Your task to perform on an android device: Go to Amazon Image 0: 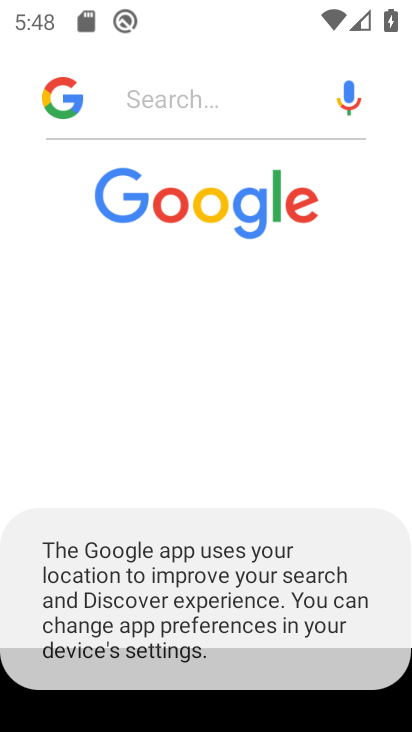
Step 0: press home button
Your task to perform on an android device: Go to Amazon Image 1: 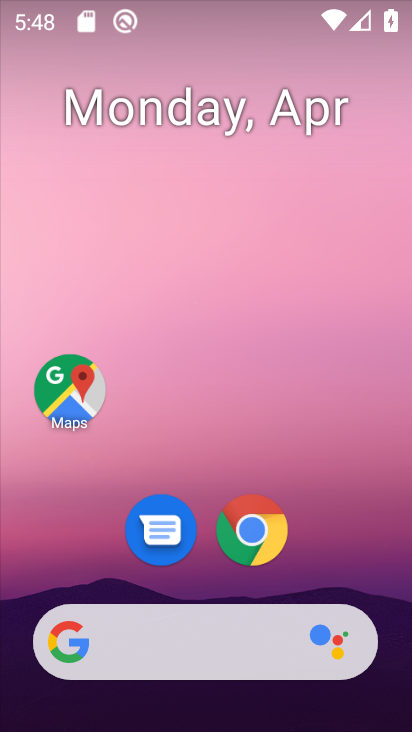
Step 1: click (251, 523)
Your task to perform on an android device: Go to Amazon Image 2: 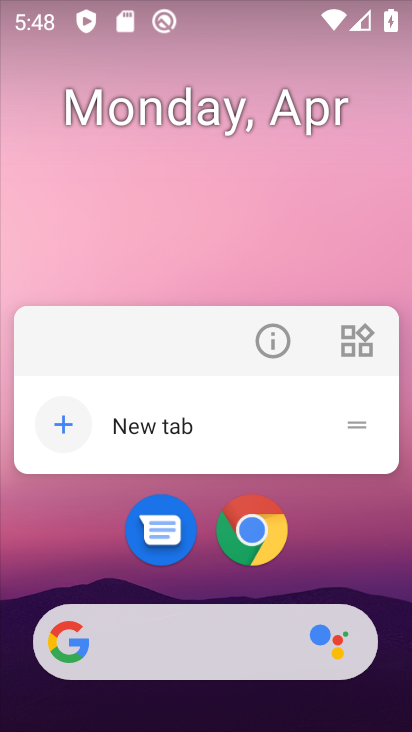
Step 2: click (313, 551)
Your task to perform on an android device: Go to Amazon Image 3: 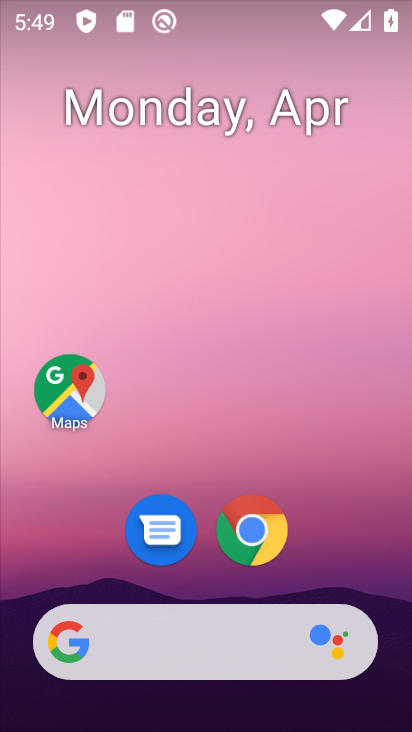
Step 3: drag from (303, 576) to (352, 27)
Your task to perform on an android device: Go to Amazon Image 4: 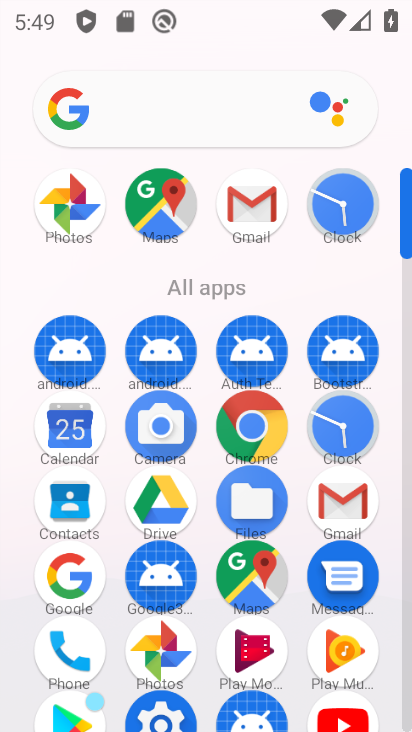
Step 4: drag from (206, 626) to (225, 174)
Your task to perform on an android device: Go to Amazon Image 5: 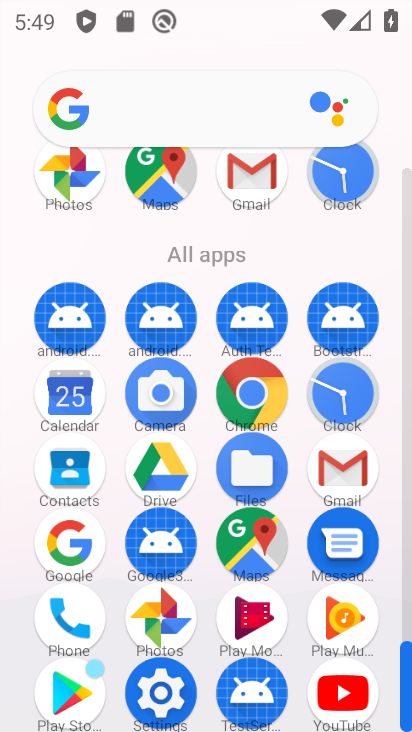
Step 5: click (255, 385)
Your task to perform on an android device: Go to Amazon Image 6: 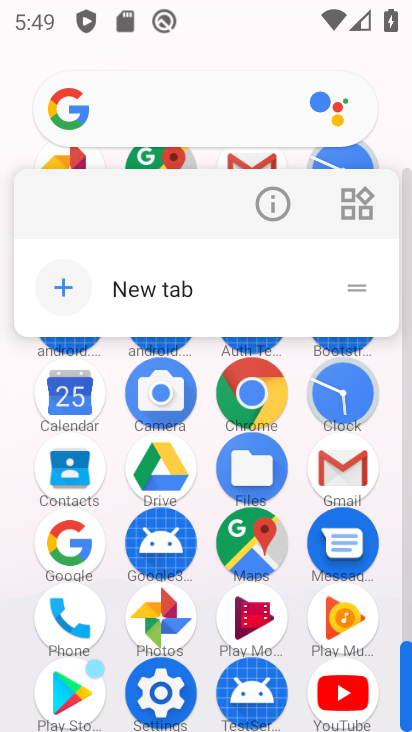
Step 6: click (253, 385)
Your task to perform on an android device: Go to Amazon Image 7: 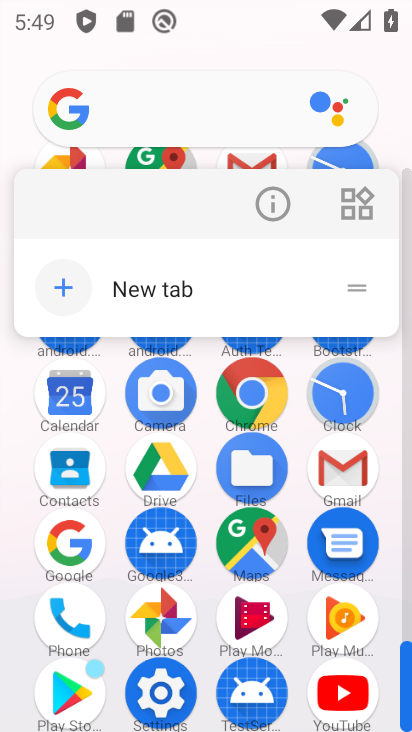
Step 7: click (244, 390)
Your task to perform on an android device: Go to Amazon Image 8: 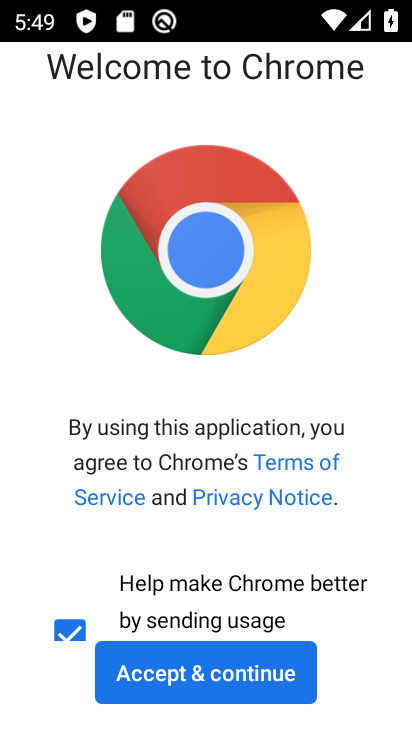
Step 8: click (194, 666)
Your task to perform on an android device: Go to Amazon Image 9: 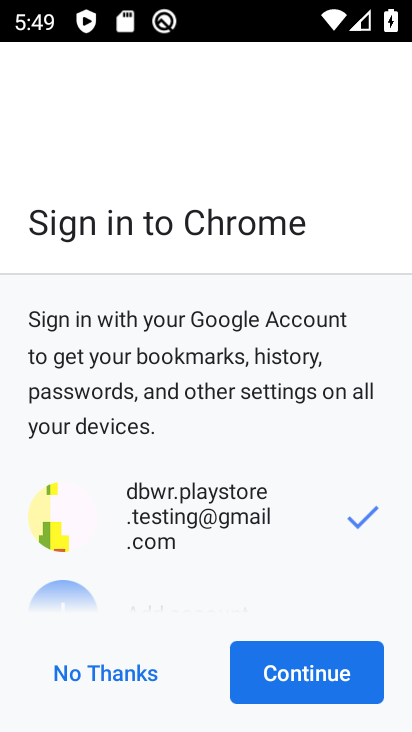
Step 9: click (310, 669)
Your task to perform on an android device: Go to Amazon Image 10: 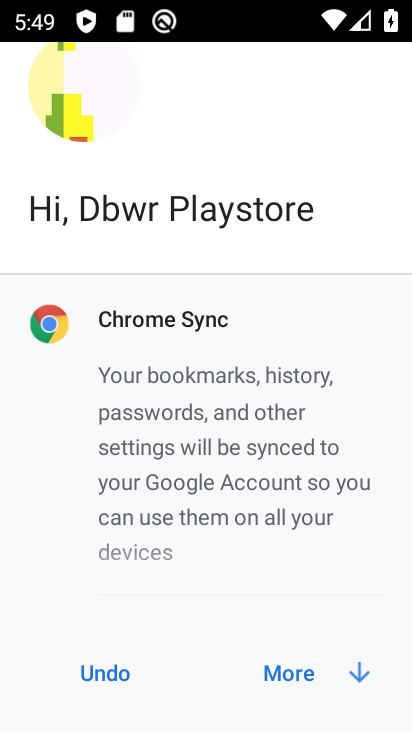
Step 10: click (296, 666)
Your task to perform on an android device: Go to Amazon Image 11: 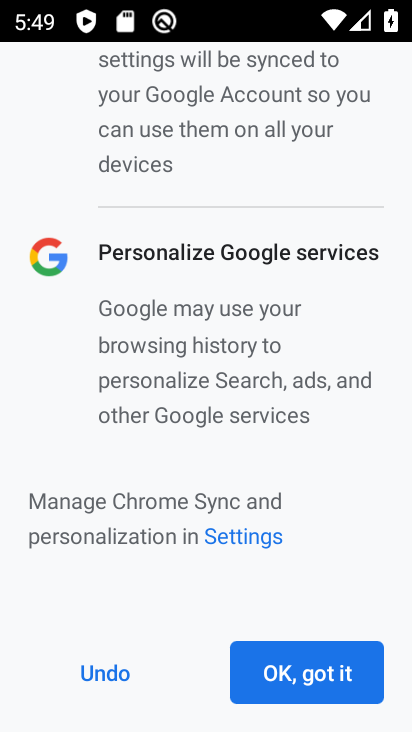
Step 11: click (304, 672)
Your task to perform on an android device: Go to Amazon Image 12: 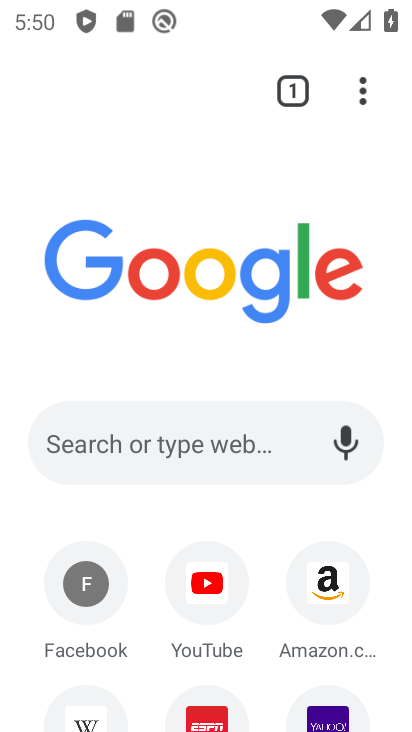
Step 12: click (323, 576)
Your task to perform on an android device: Go to Amazon Image 13: 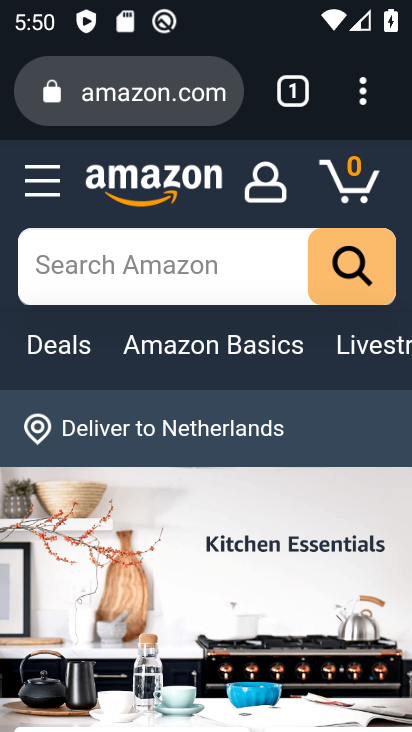
Step 13: task complete